Your task to perform on an android device: Check the weather Image 0: 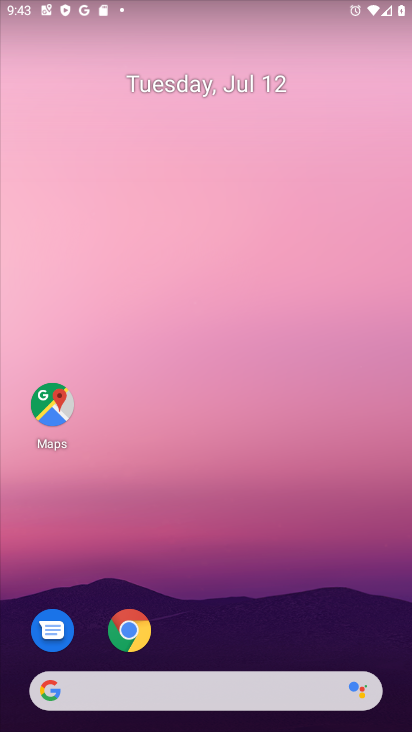
Step 0: drag from (209, 616) to (207, 211)
Your task to perform on an android device: Check the weather Image 1: 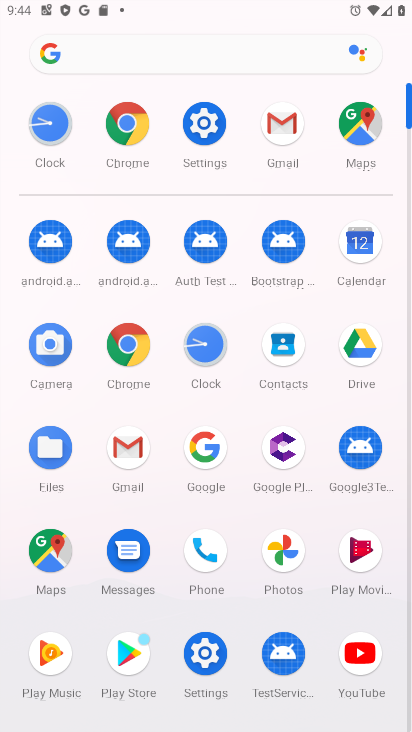
Step 1: click (206, 453)
Your task to perform on an android device: Check the weather Image 2: 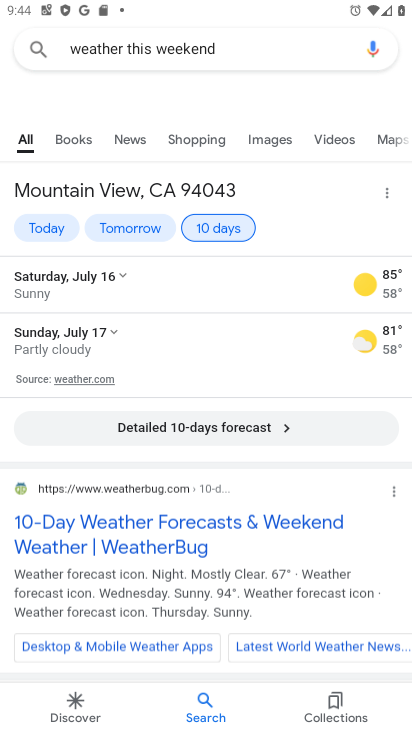
Step 2: click (258, 37)
Your task to perform on an android device: Check the weather Image 3: 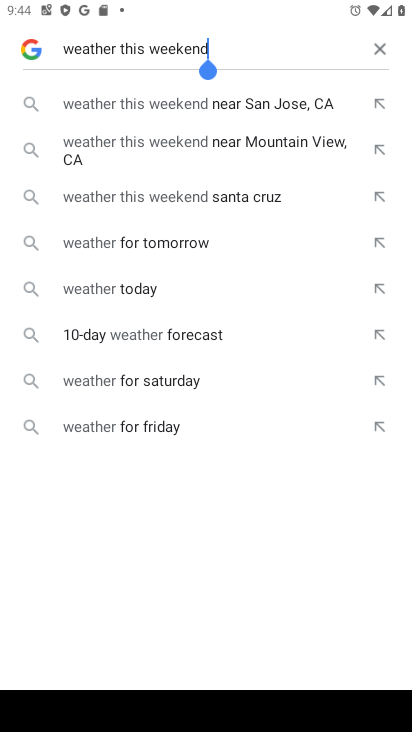
Step 3: click (368, 44)
Your task to perform on an android device: Check the weather Image 4: 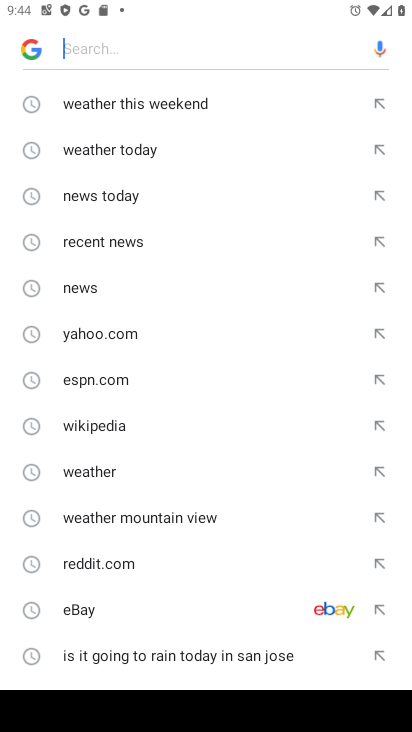
Step 4: click (103, 472)
Your task to perform on an android device: Check the weather Image 5: 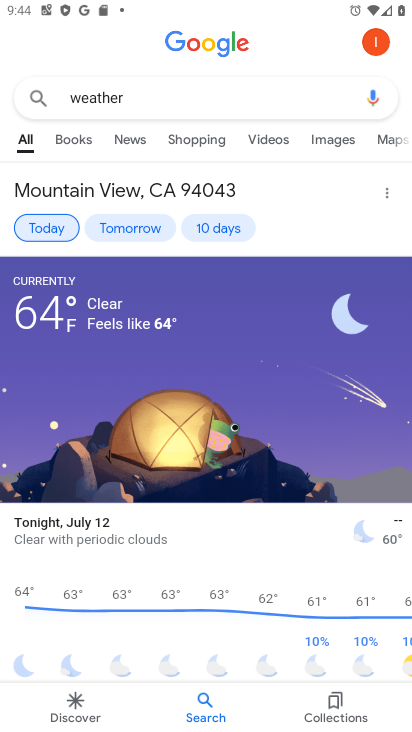
Step 5: task complete